Your task to perform on an android device: turn notification dots off Image 0: 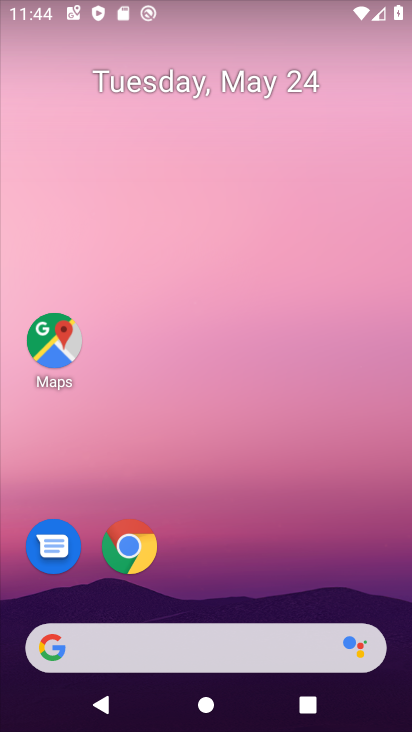
Step 0: drag from (235, 587) to (222, 192)
Your task to perform on an android device: turn notification dots off Image 1: 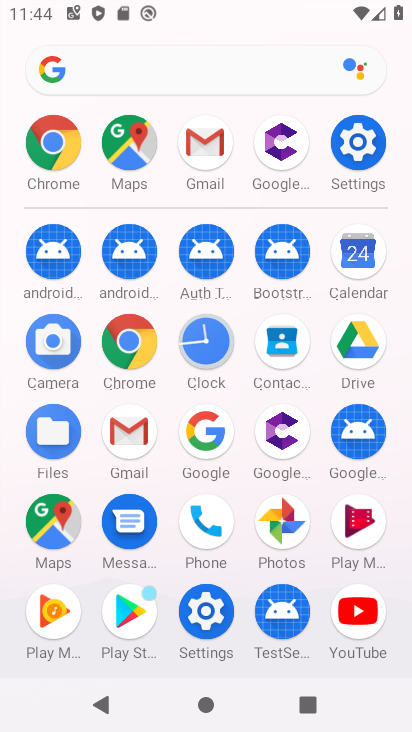
Step 1: click (375, 144)
Your task to perform on an android device: turn notification dots off Image 2: 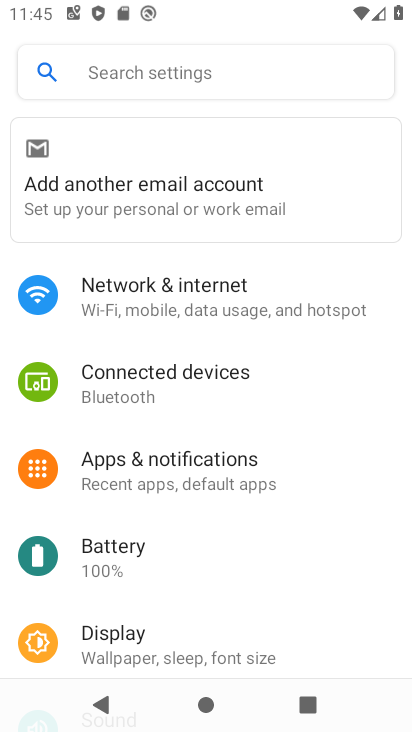
Step 2: click (225, 486)
Your task to perform on an android device: turn notification dots off Image 3: 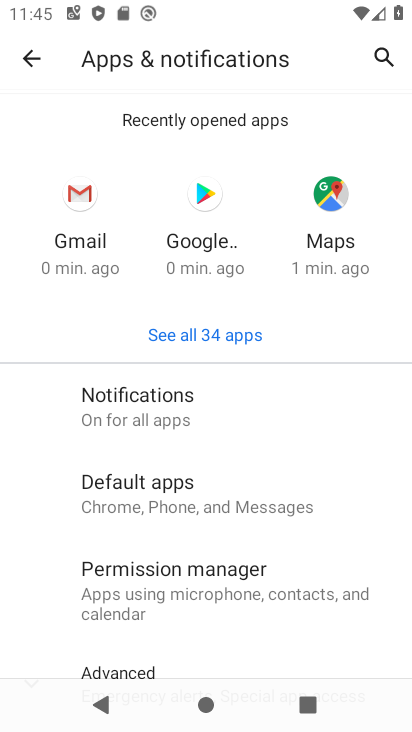
Step 3: click (211, 409)
Your task to perform on an android device: turn notification dots off Image 4: 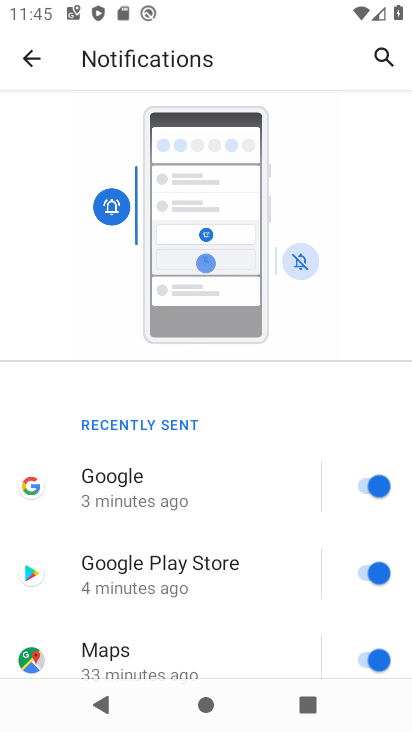
Step 4: drag from (229, 654) to (225, 276)
Your task to perform on an android device: turn notification dots off Image 5: 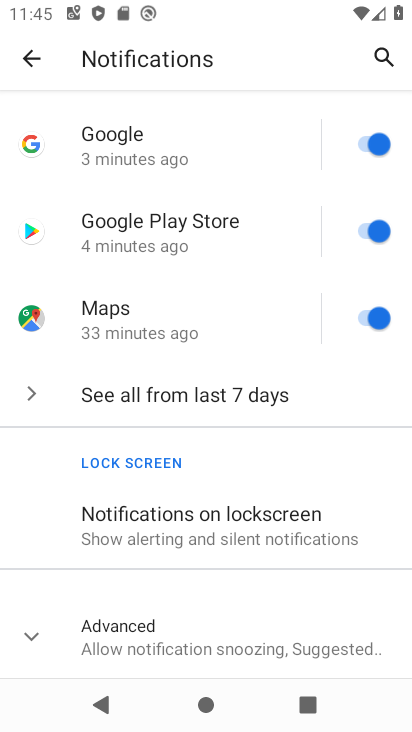
Step 5: click (257, 635)
Your task to perform on an android device: turn notification dots off Image 6: 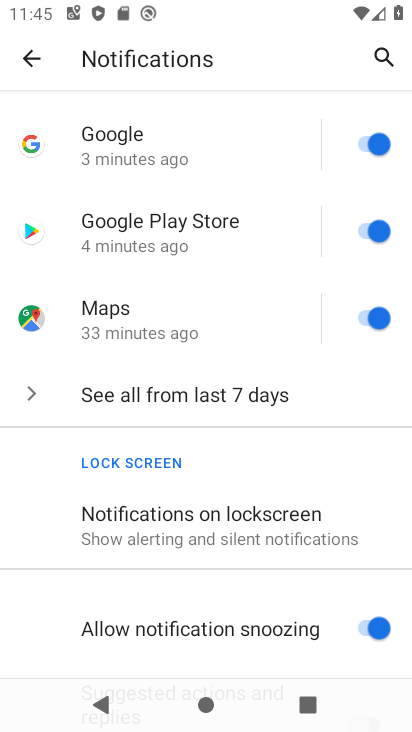
Step 6: drag from (257, 635) to (222, 301)
Your task to perform on an android device: turn notification dots off Image 7: 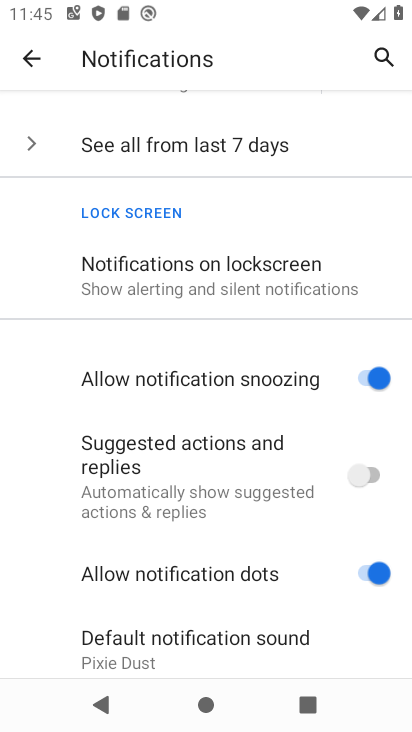
Step 7: click (383, 579)
Your task to perform on an android device: turn notification dots off Image 8: 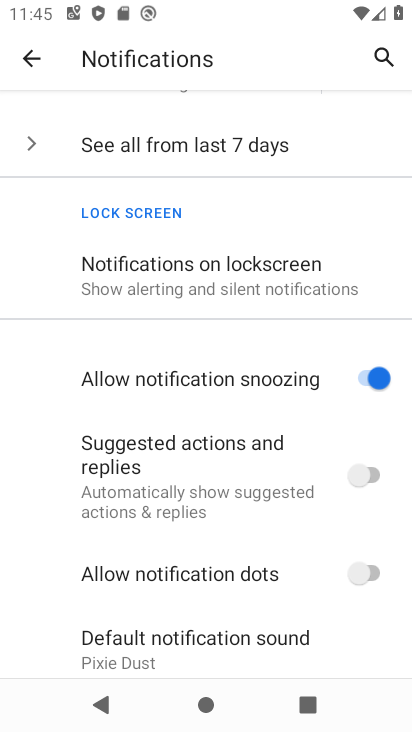
Step 8: task complete